Your task to perform on an android device: change the clock display to analog Image 0: 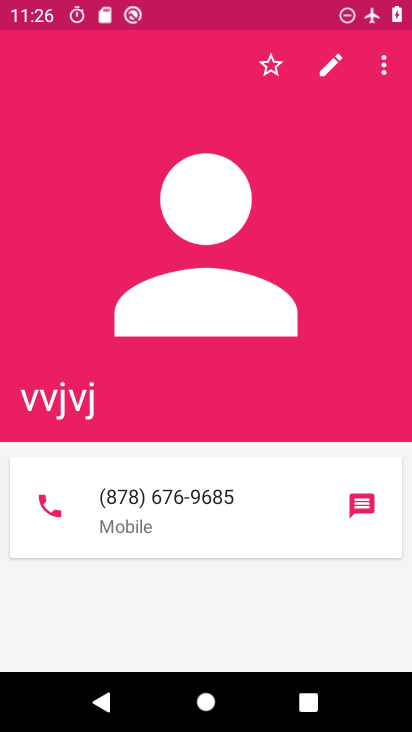
Step 0: press home button
Your task to perform on an android device: change the clock display to analog Image 1: 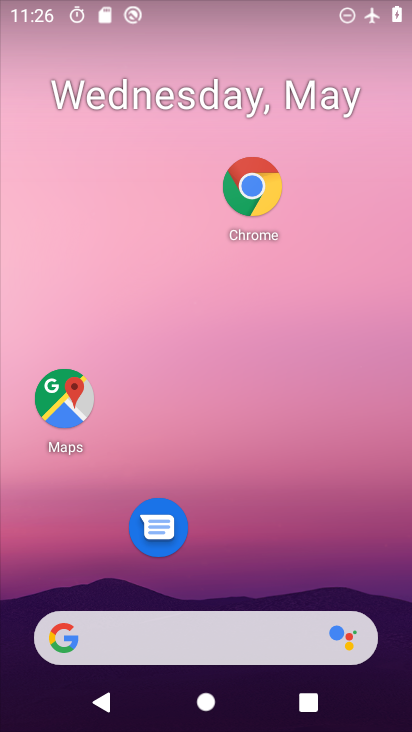
Step 1: drag from (248, 587) to (270, 138)
Your task to perform on an android device: change the clock display to analog Image 2: 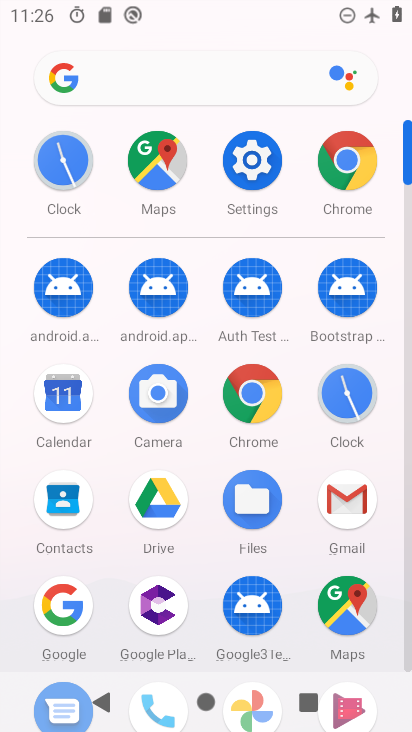
Step 2: click (354, 393)
Your task to perform on an android device: change the clock display to analog Image 3: 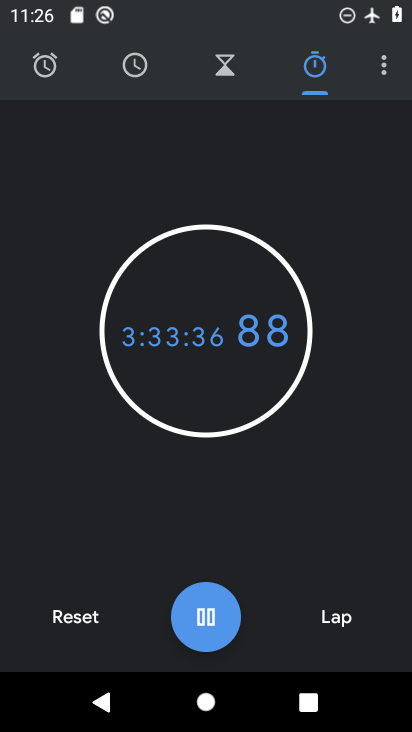
Step 3: click (389, 83)
Your task to perform on an android device: change the clock display to analog Image 4: 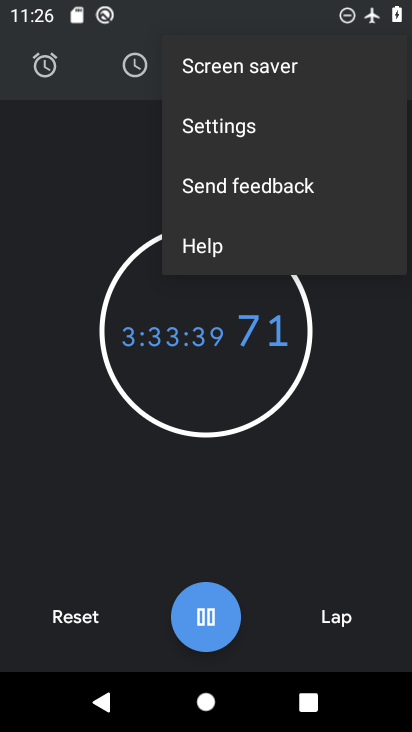
Step 4: click (264, 141)
Your task to perform on an android device: change the clock display to analog Image 5: 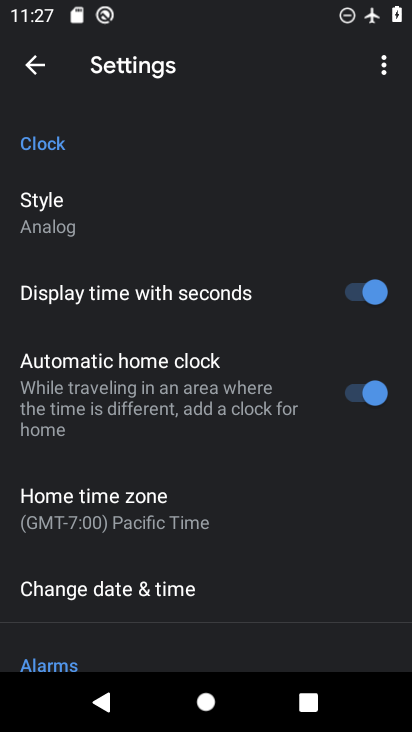
Step 5: task complete